Your task to perform on an android device: install app "Microsoft Authenticator" Image 0: 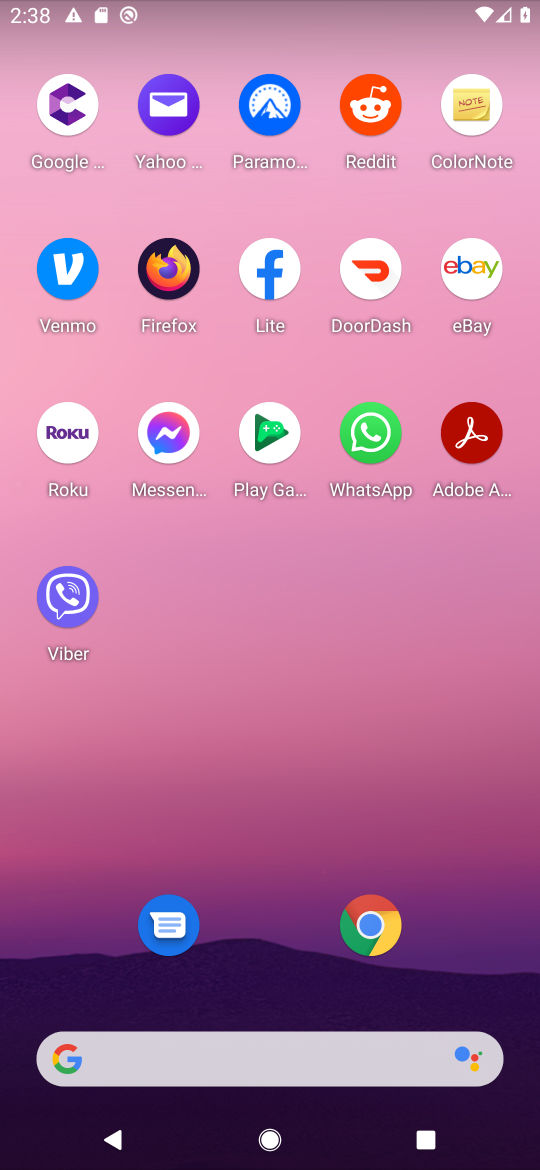
Step 0: drag from (271, 920) to (260, 100)
Your task to perform on an android device: install app "Microsoft Authenticator" Image 1: 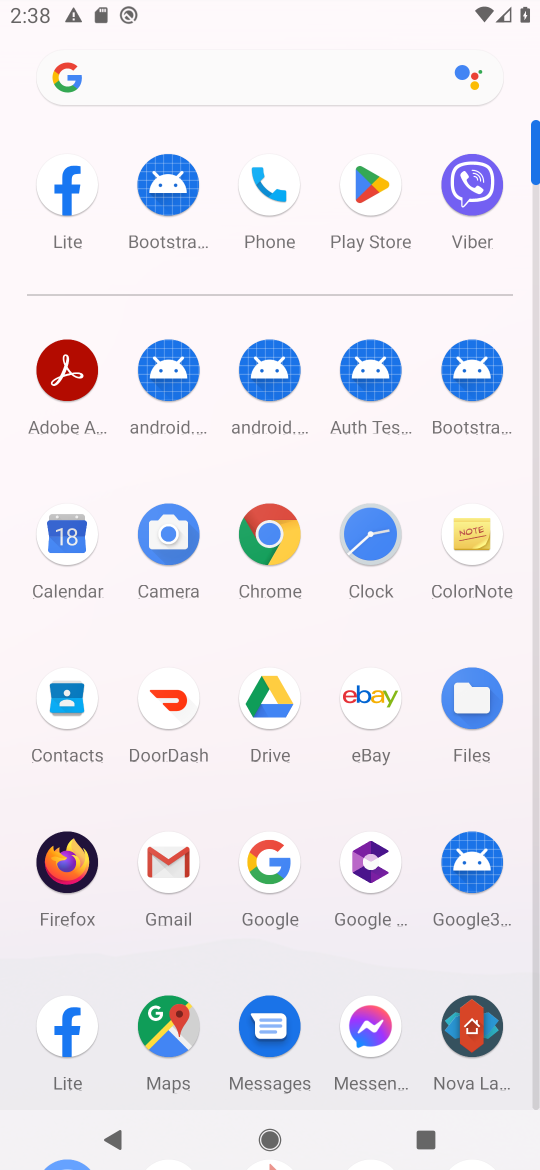
Step 1: click (364, 182)
Your task to perform on an android device: install app "Microsoft Authenticator" Image 2: 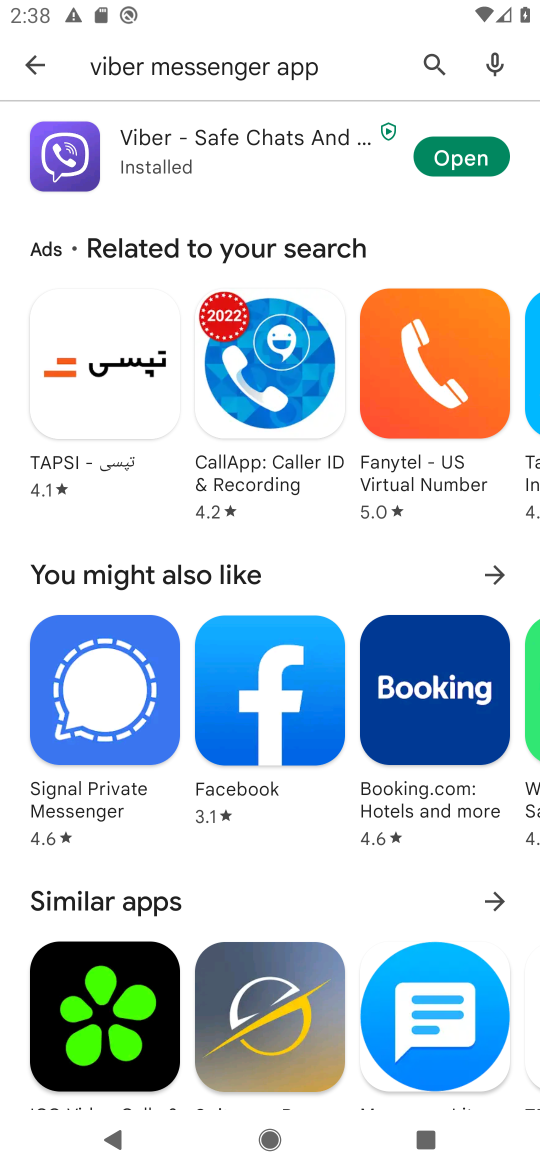
Step 2: click (32, 67)
Your task to perform on an android device: install app "Microsoft Authenticator" Image 3: 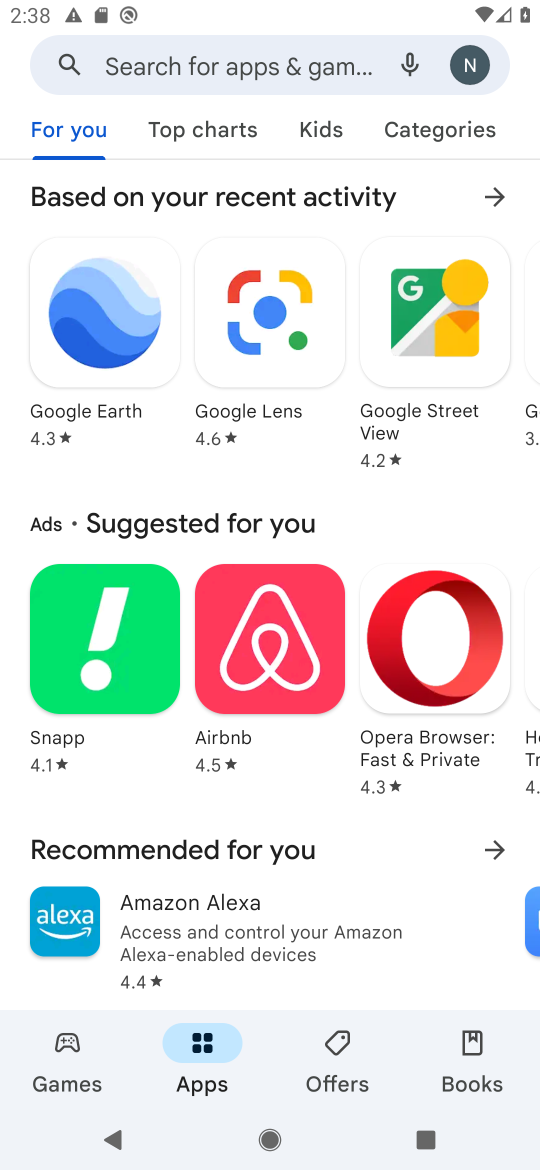
Step 3: click (189, 65)
Your task to perform on an android device: install app "Microsoft Authenticator" Image 4: 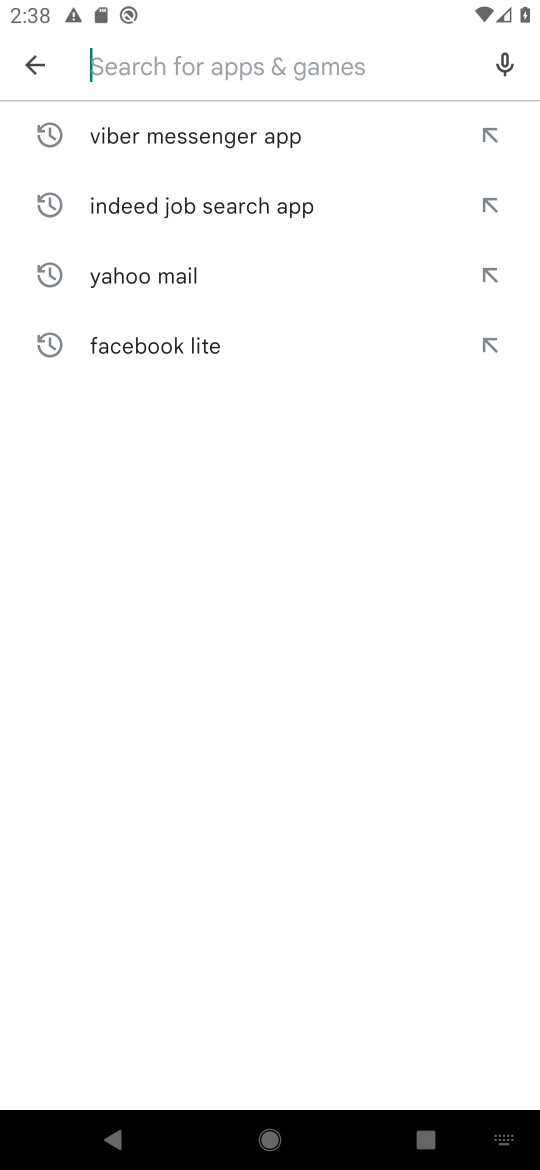
Step 4: type "Microsoft Authenticator"
Your task to perform on an android device: install app "Microsoft Authenticator" Image 5: 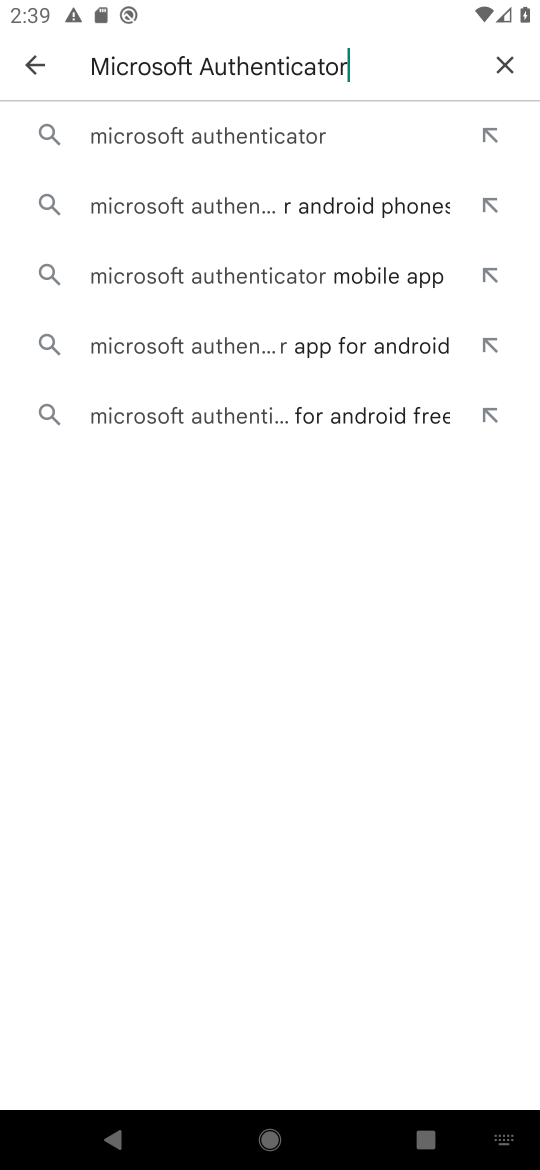
Step 5: click (166, 143)
Your task to perform on an android device: install app "Microsoft Authenticator" Image 6: 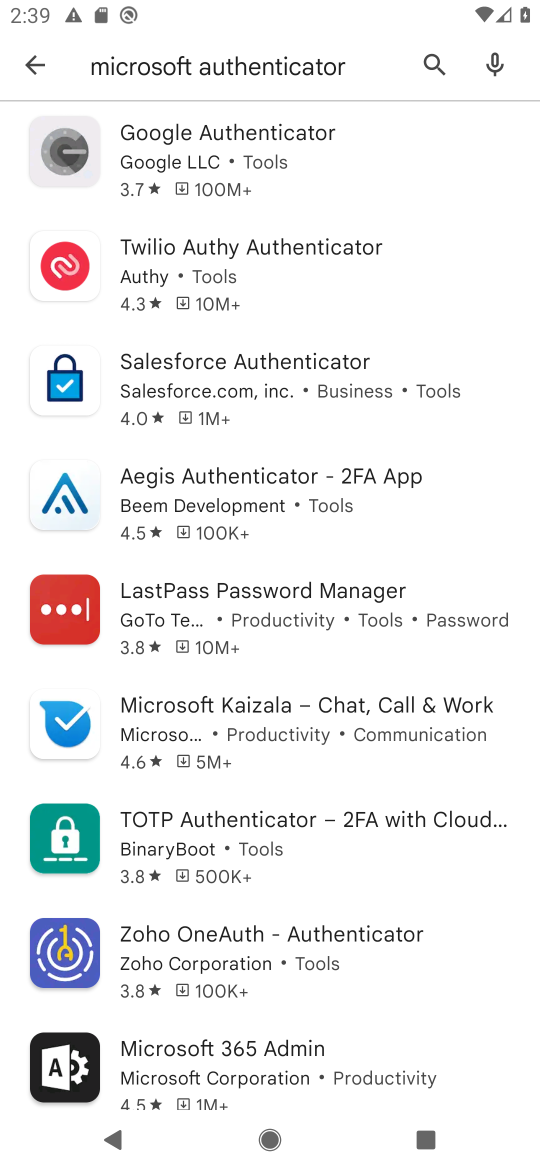
Step 6: task complete